Your task to perform on an android device: delete location history Image 0: 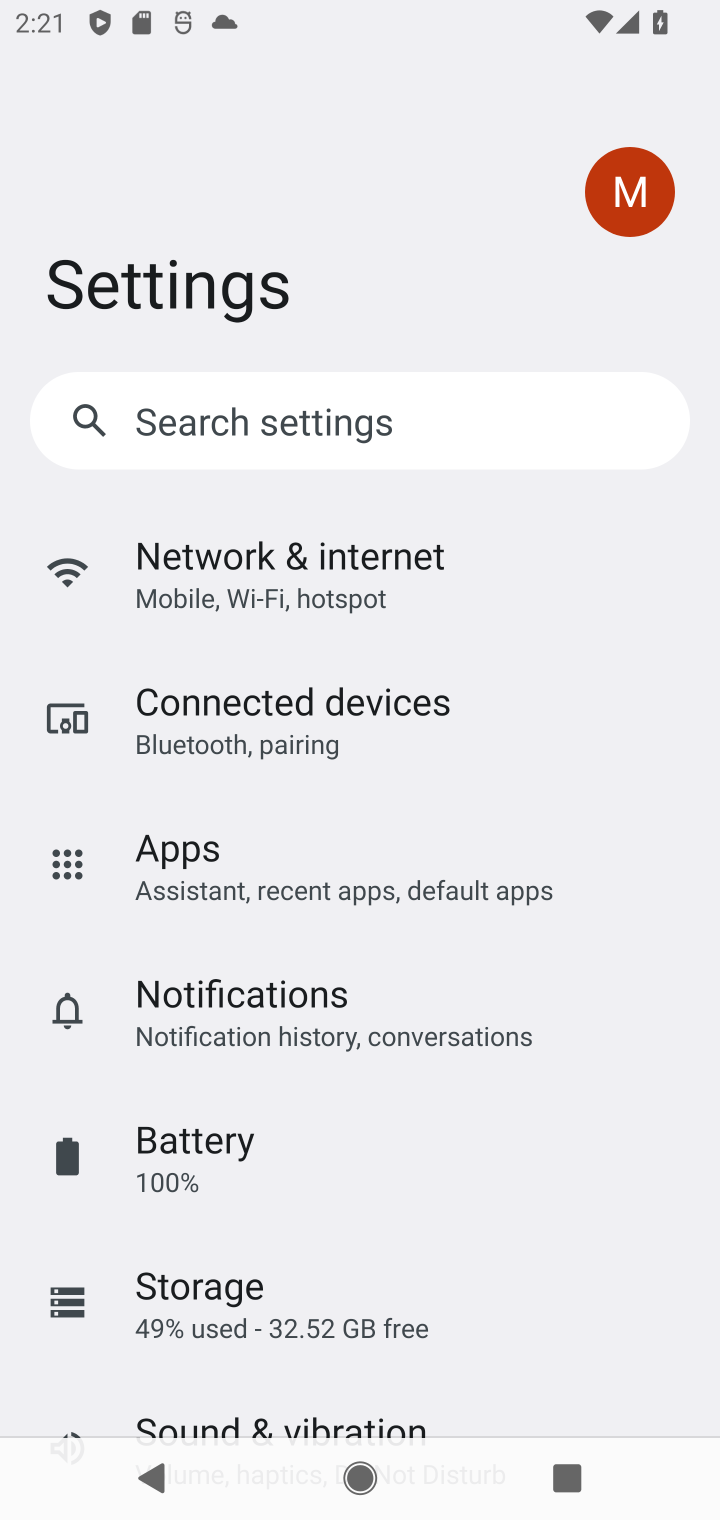
Step 0: press home button
Your task to perform on an android device: delete location history Image 1: 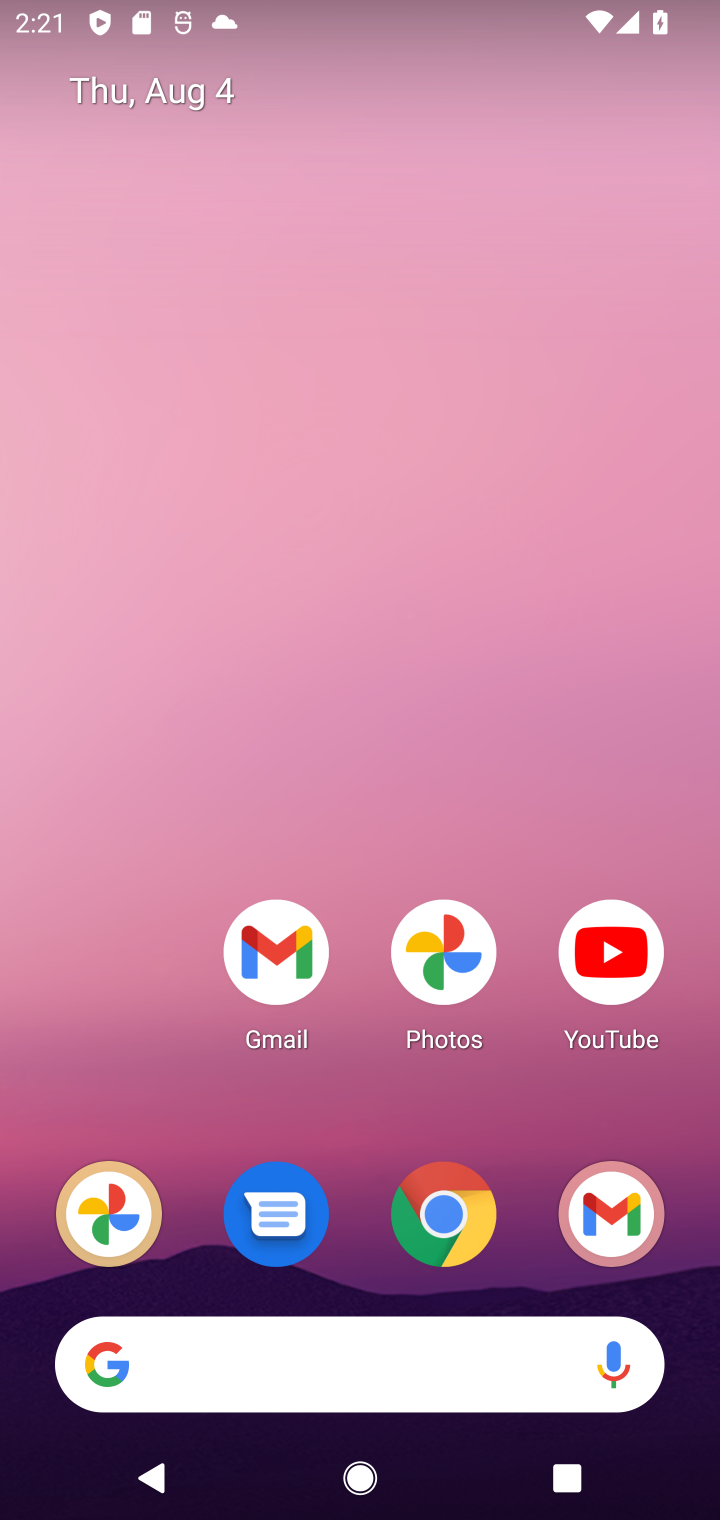
Step 1: drag from (144, 870) to (216, 0)
Your task to perform on an android device: delete location history Image 2: 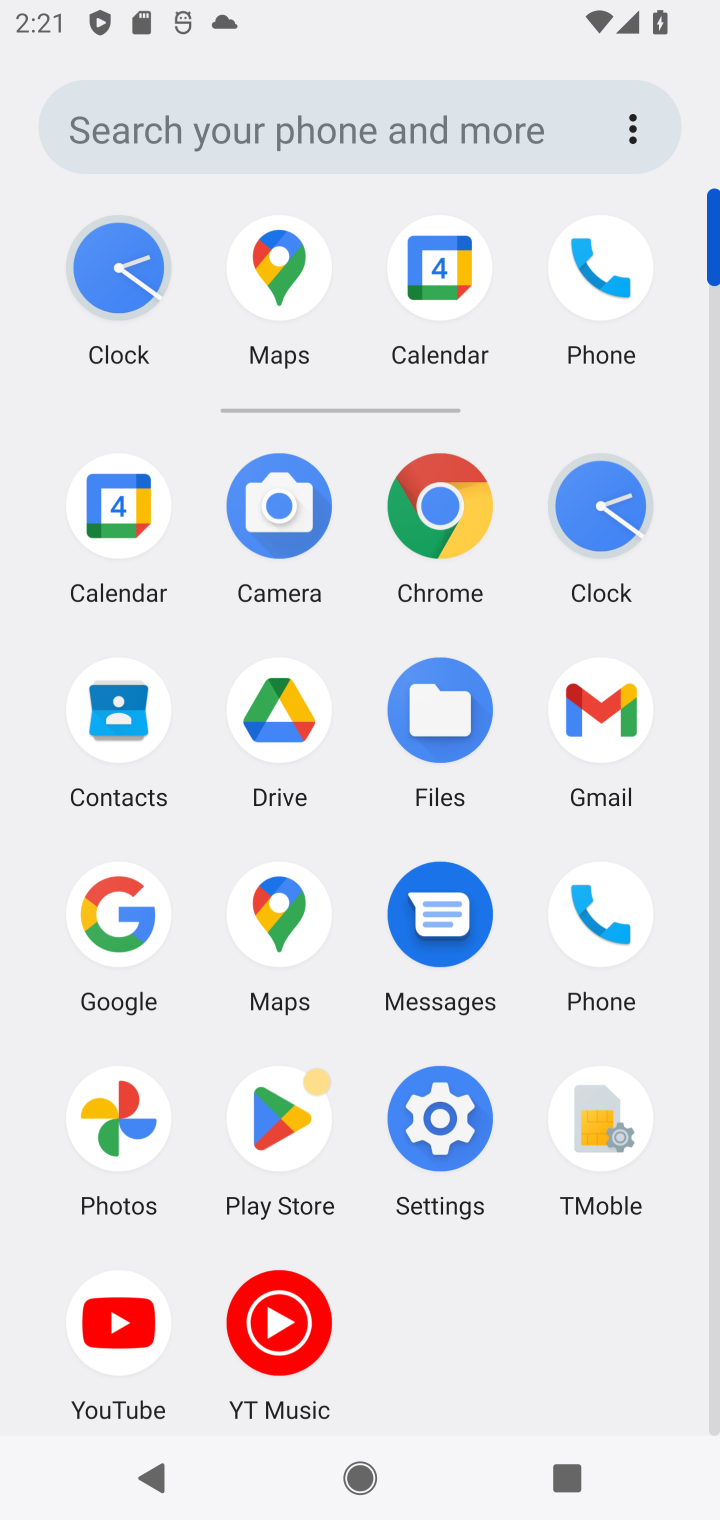
Step 2: click (455, 1149)
Your task to perform on an android device: delete location history Image 3: 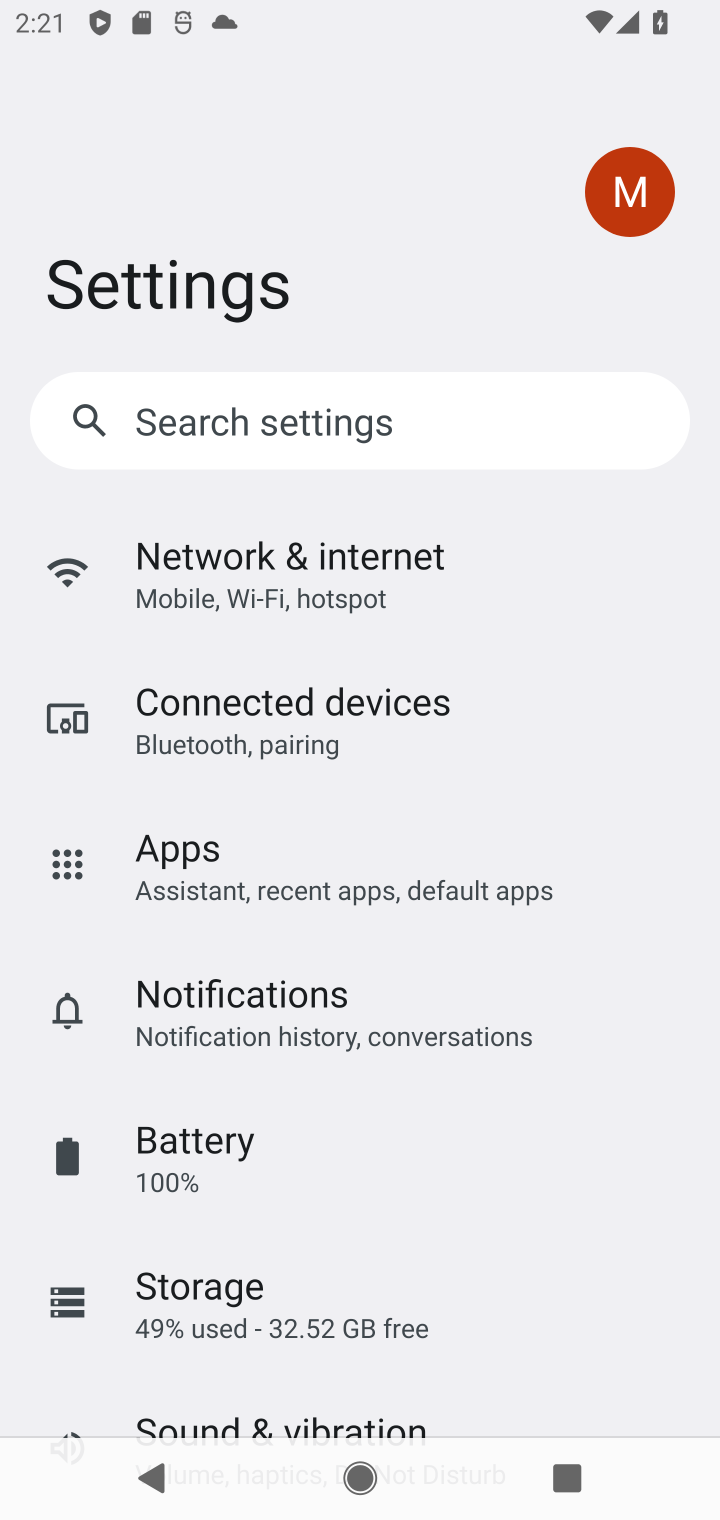
Step 3: drag from (174, 1205) to (239, 198)
Your task to perform on an android device: delete location history Image 4: 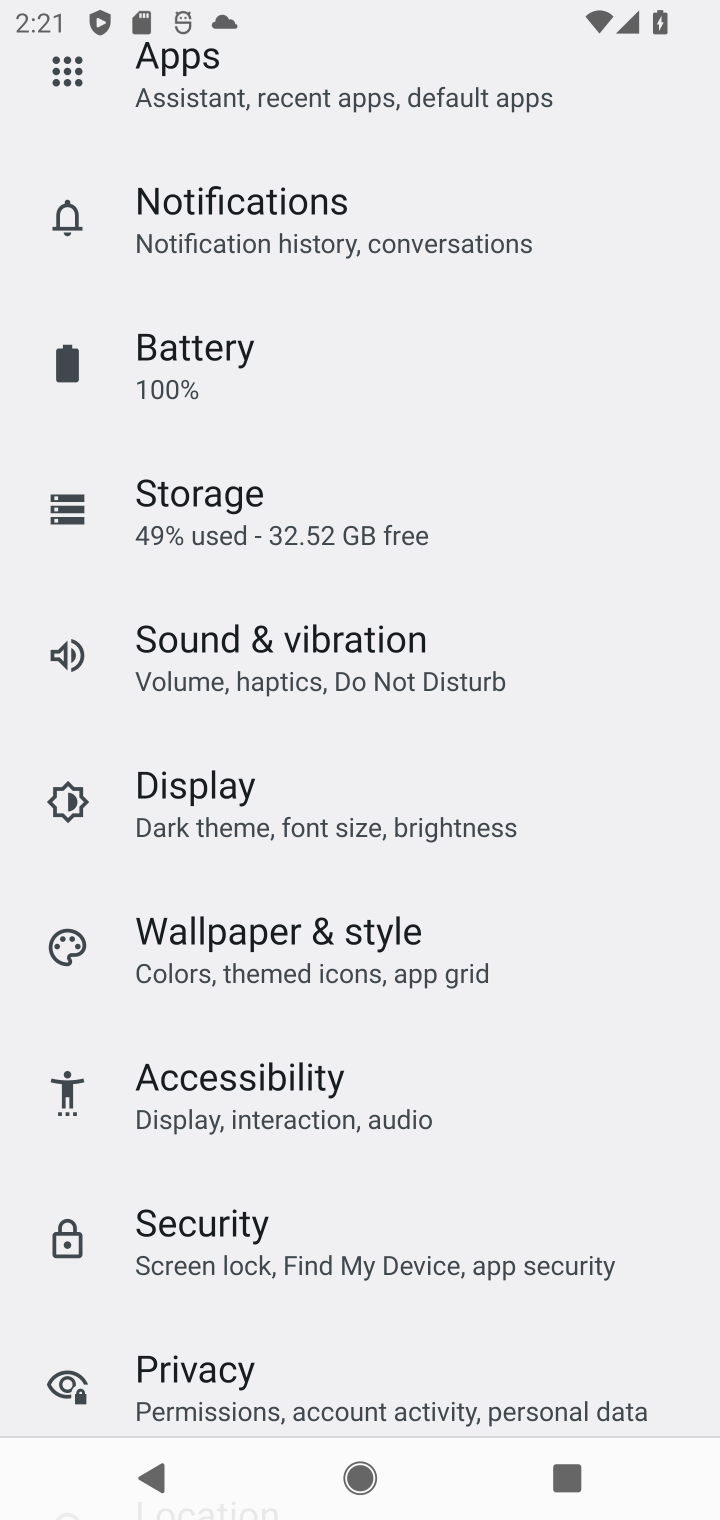
Step 4: drag from (264, 1280) to (140, 203)
Your task to perform on an android device: delete location history Image 5: 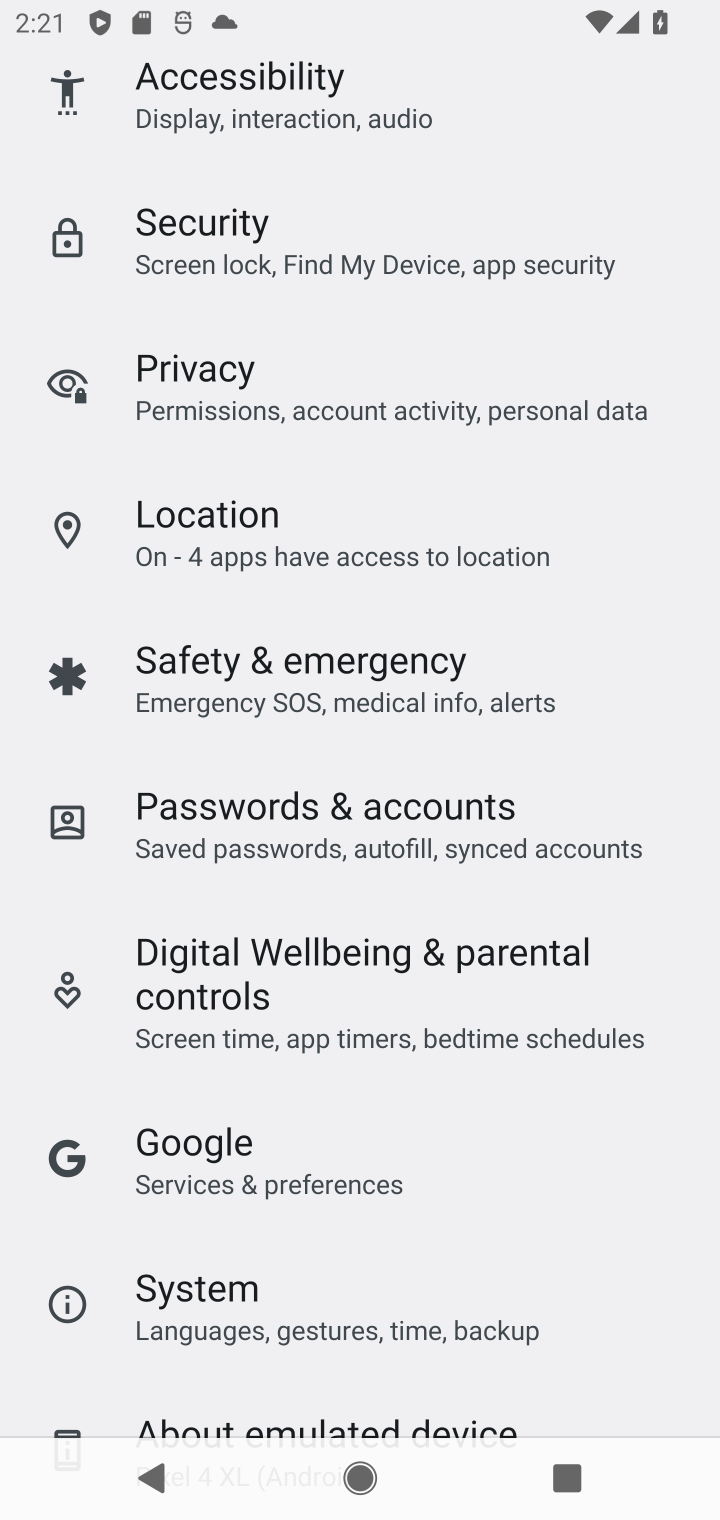
Step 5: drag from (204, 1199) to (248, 193)
Your task to perform on an android device: delete location history Image 6: 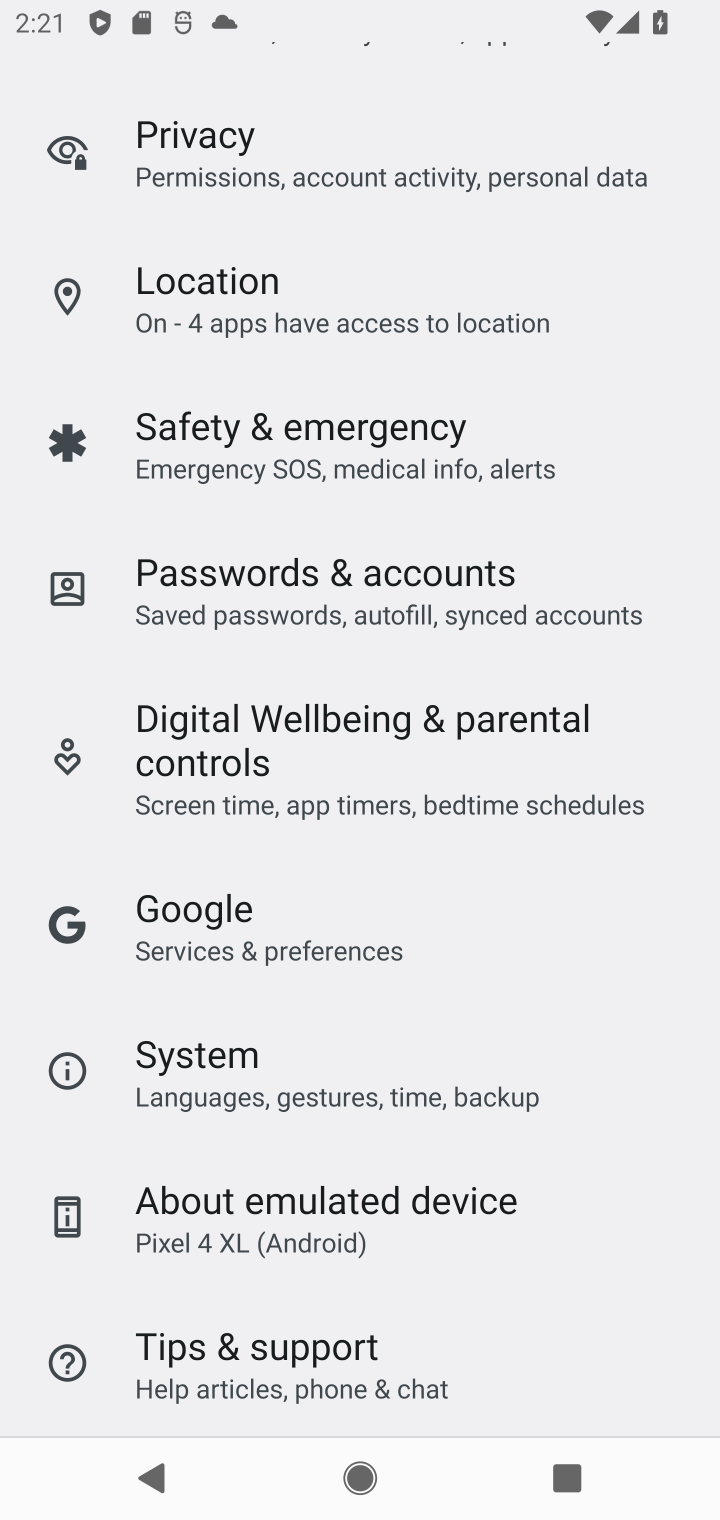
Step 6: drag from (263, 174) to (283, 701)
Your task to perform on an android device: delete location history Image 7: 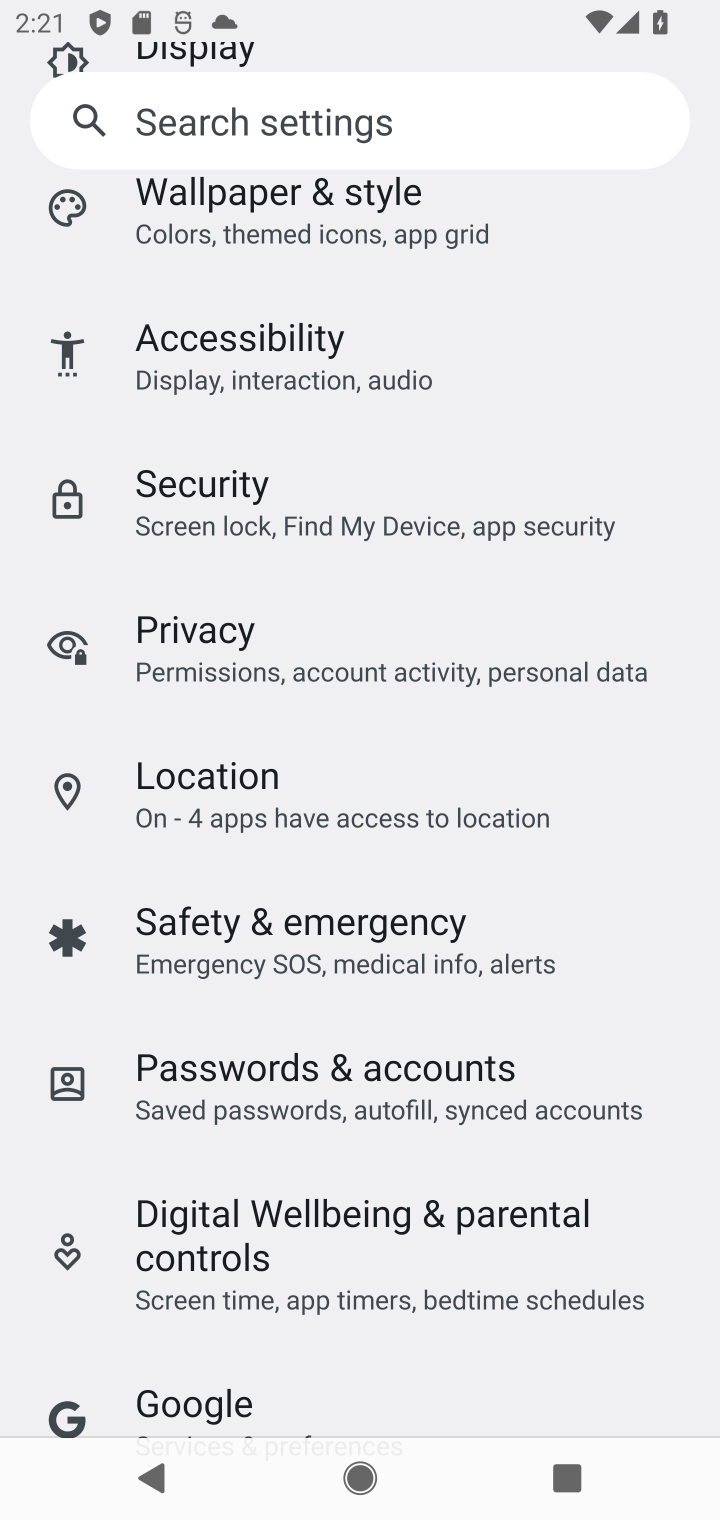
Step 7: click (177, 834)
Your task to perform on an android device: delete location history Image 8: 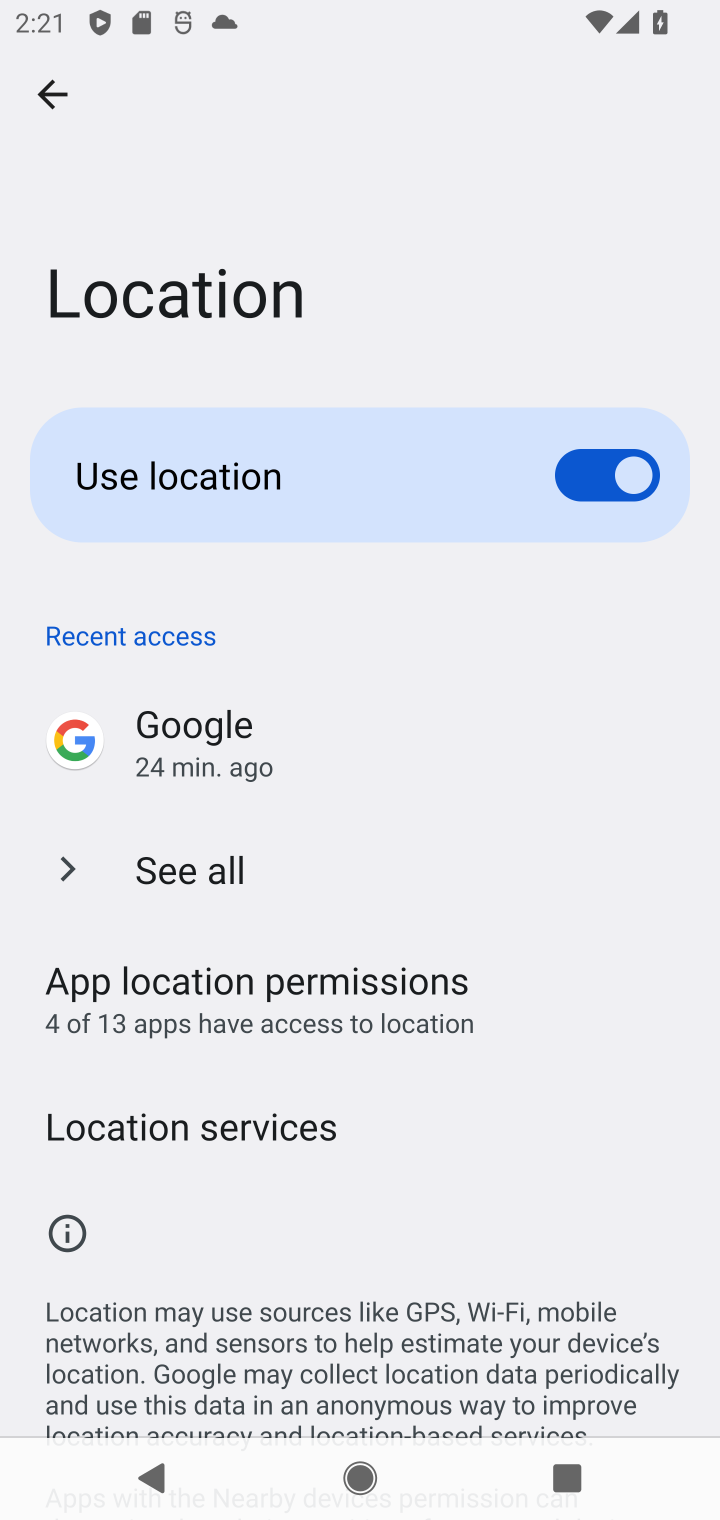
Step 8: click (196, 1158)
Your task to perform on an android device: delete location history Image 9: 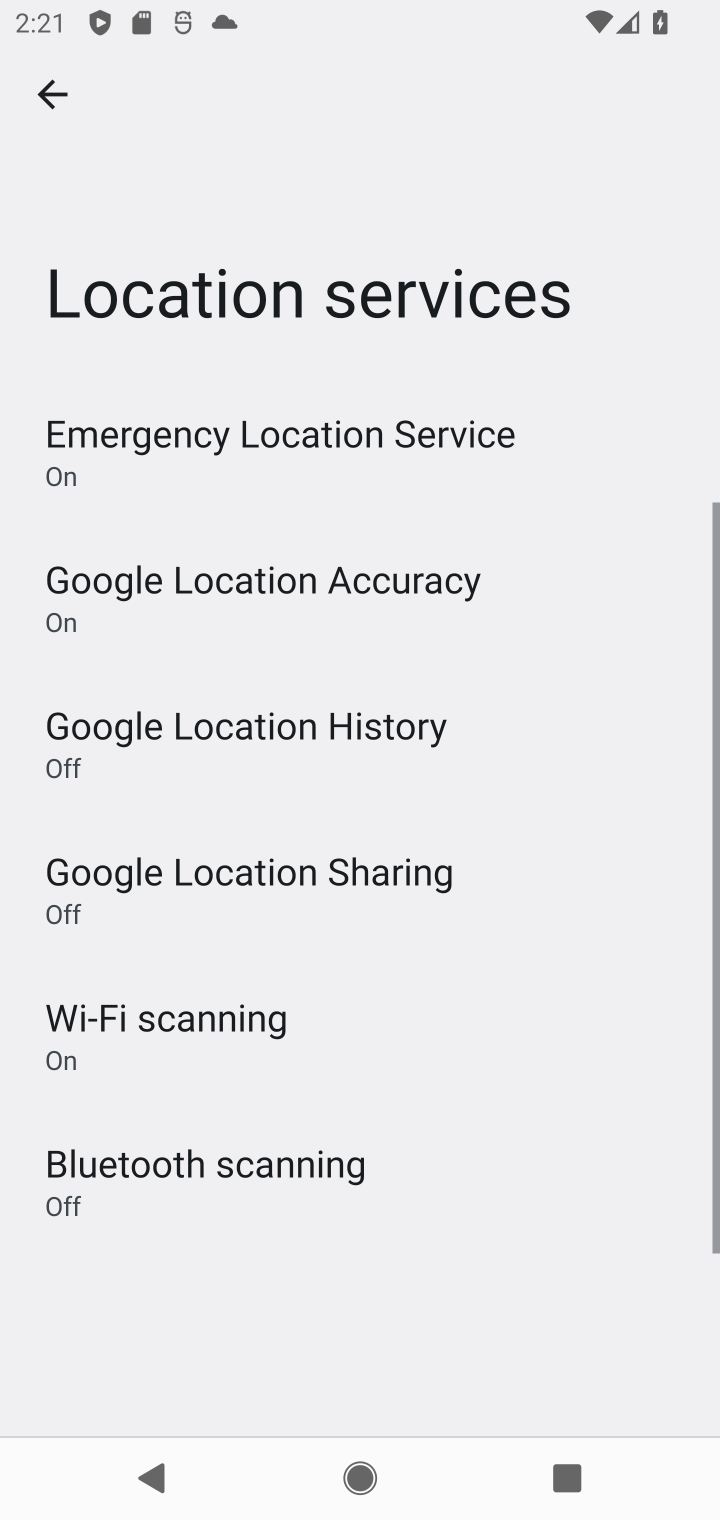
Step 9: click (285, 746)
Your task to perform on an android device: delete location history Image 10: 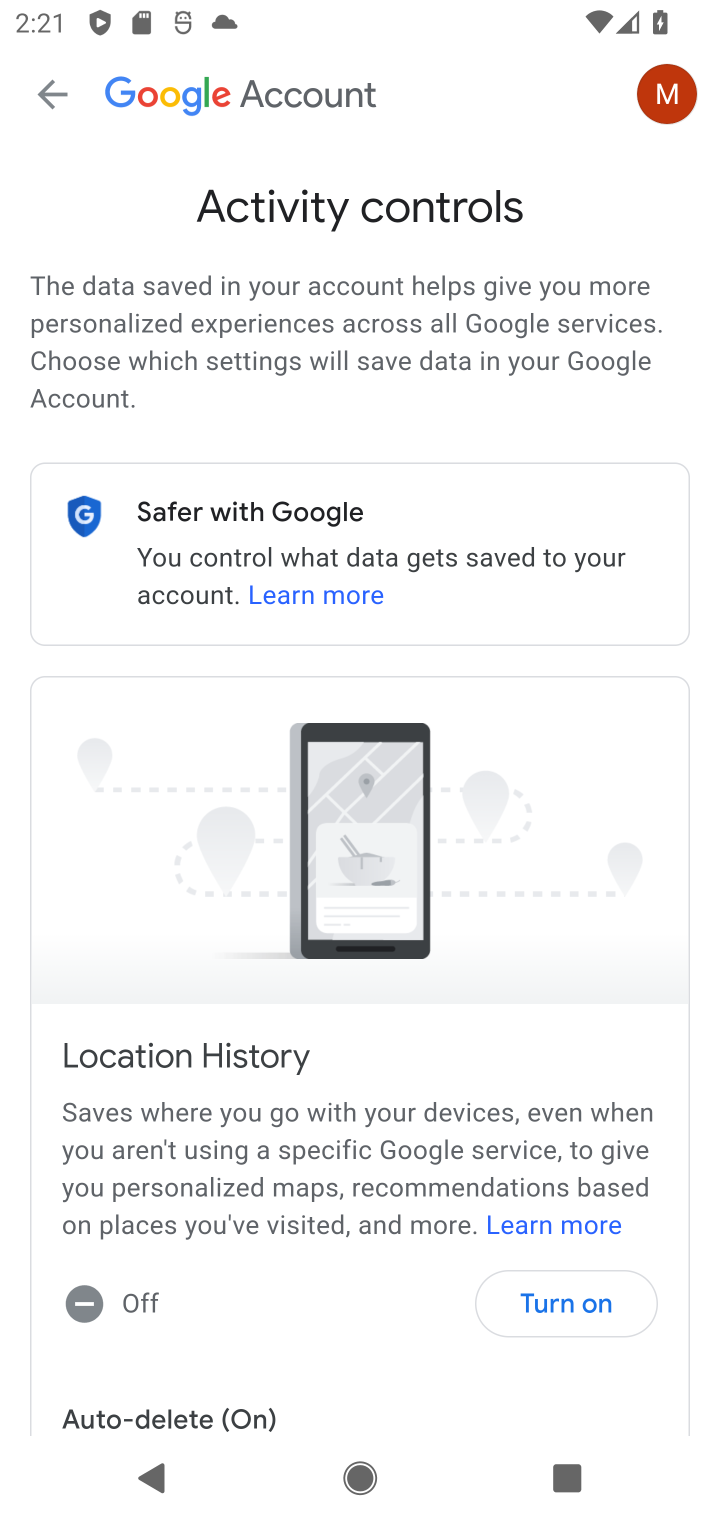
Step 10: drag from (282, 1305) to (299, 448)
Your task to perform on an android device: delete location history Image 11: 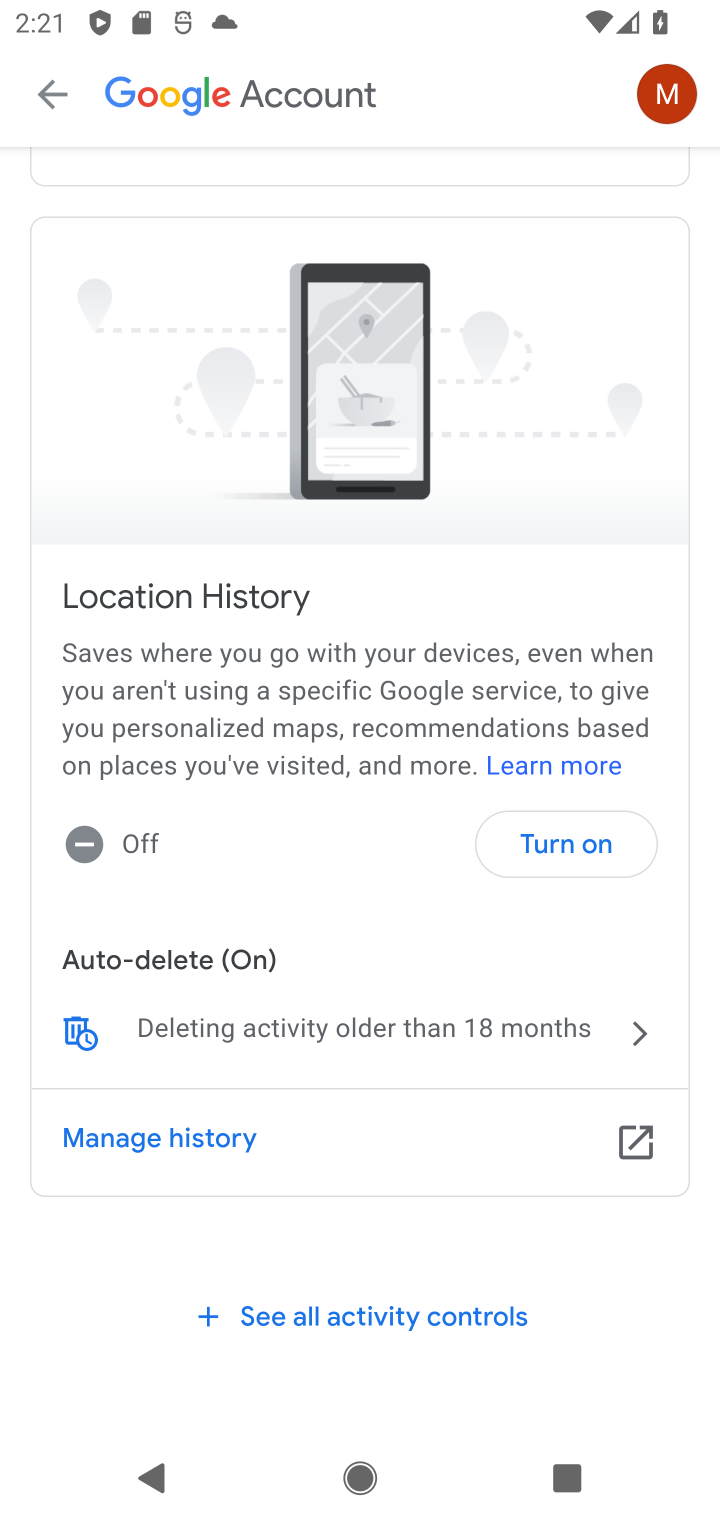
Step 11: click (383, 994)
Your task to perform on an android device: delete location history Image 12: 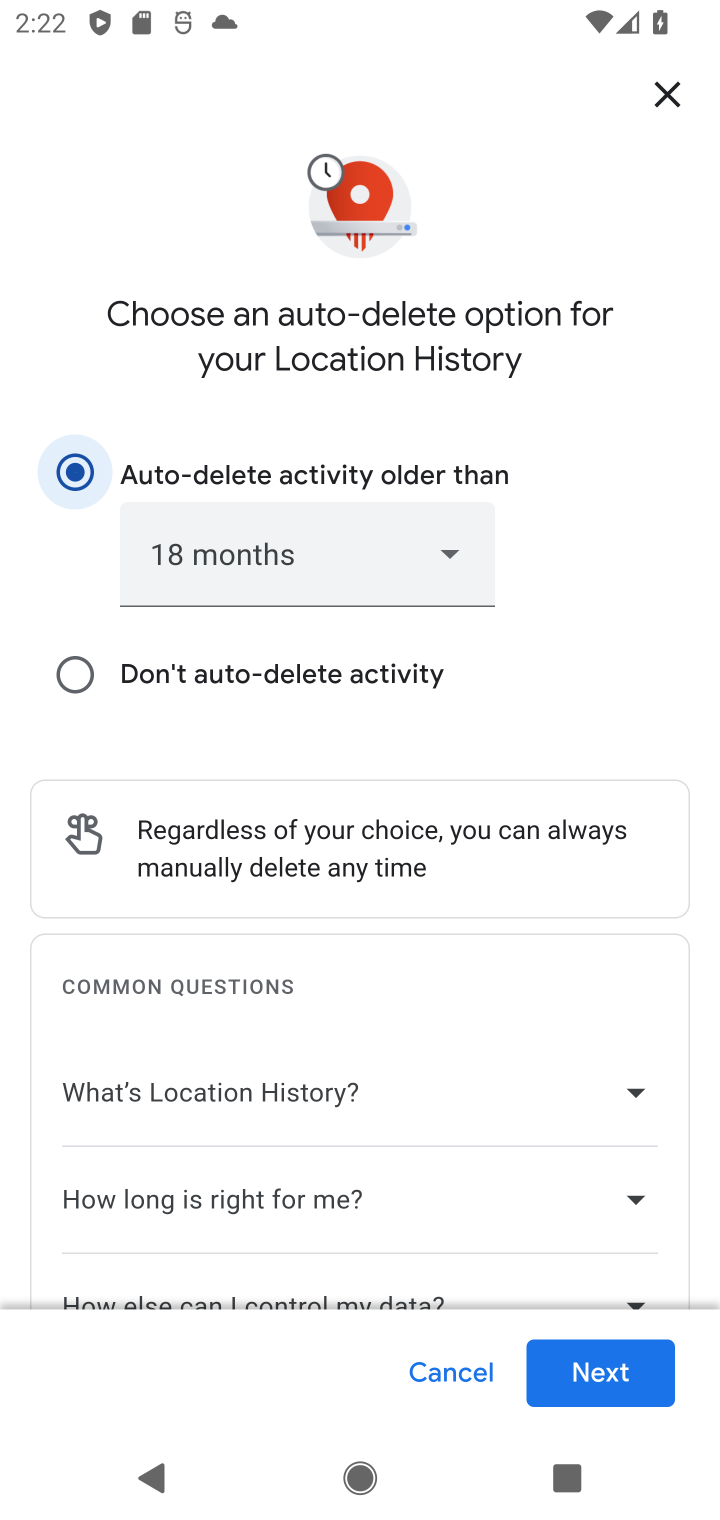
Step 12: click (610, 1384)
Your task to perform on an android device: delete location history Image 13: 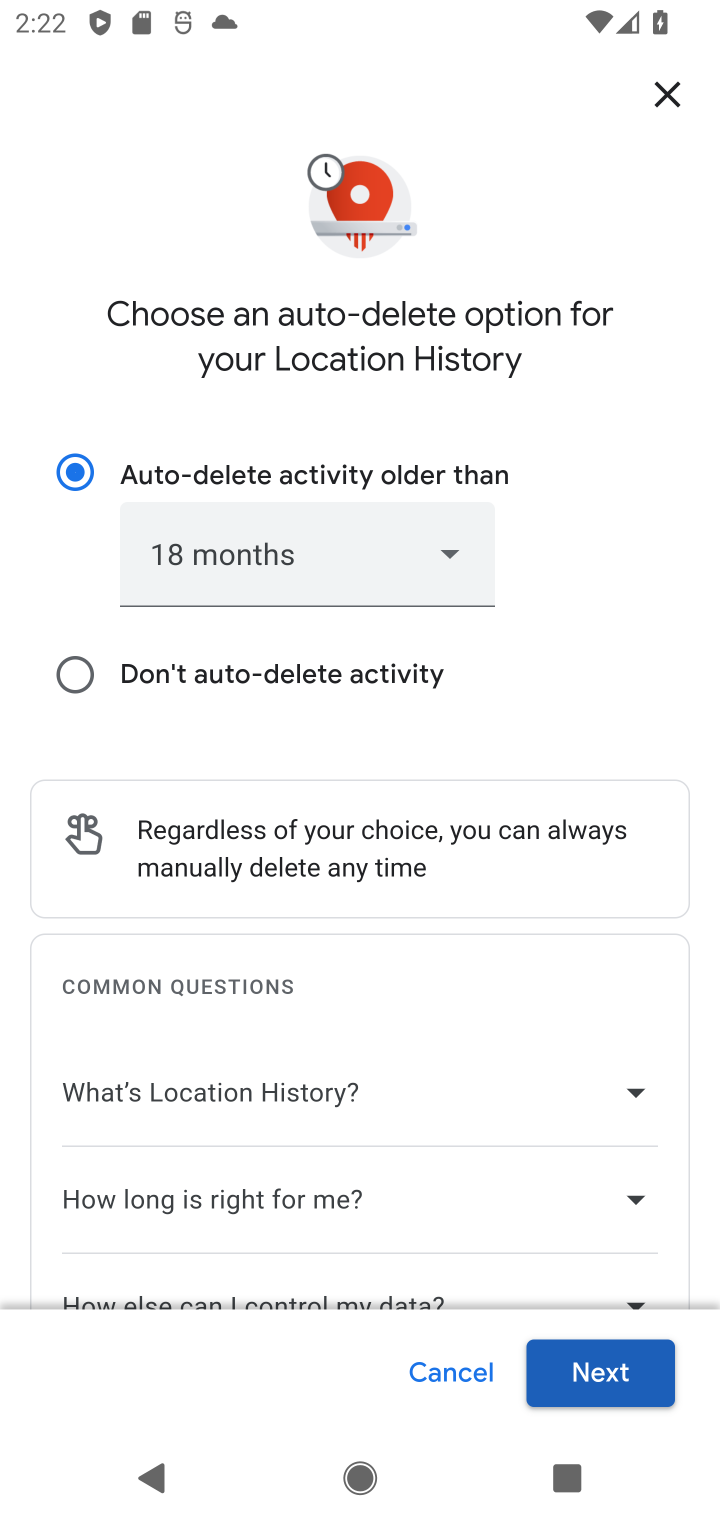
Step 13: click (615, 1403)
Your task to perform on an android device: delete location history Image 14: 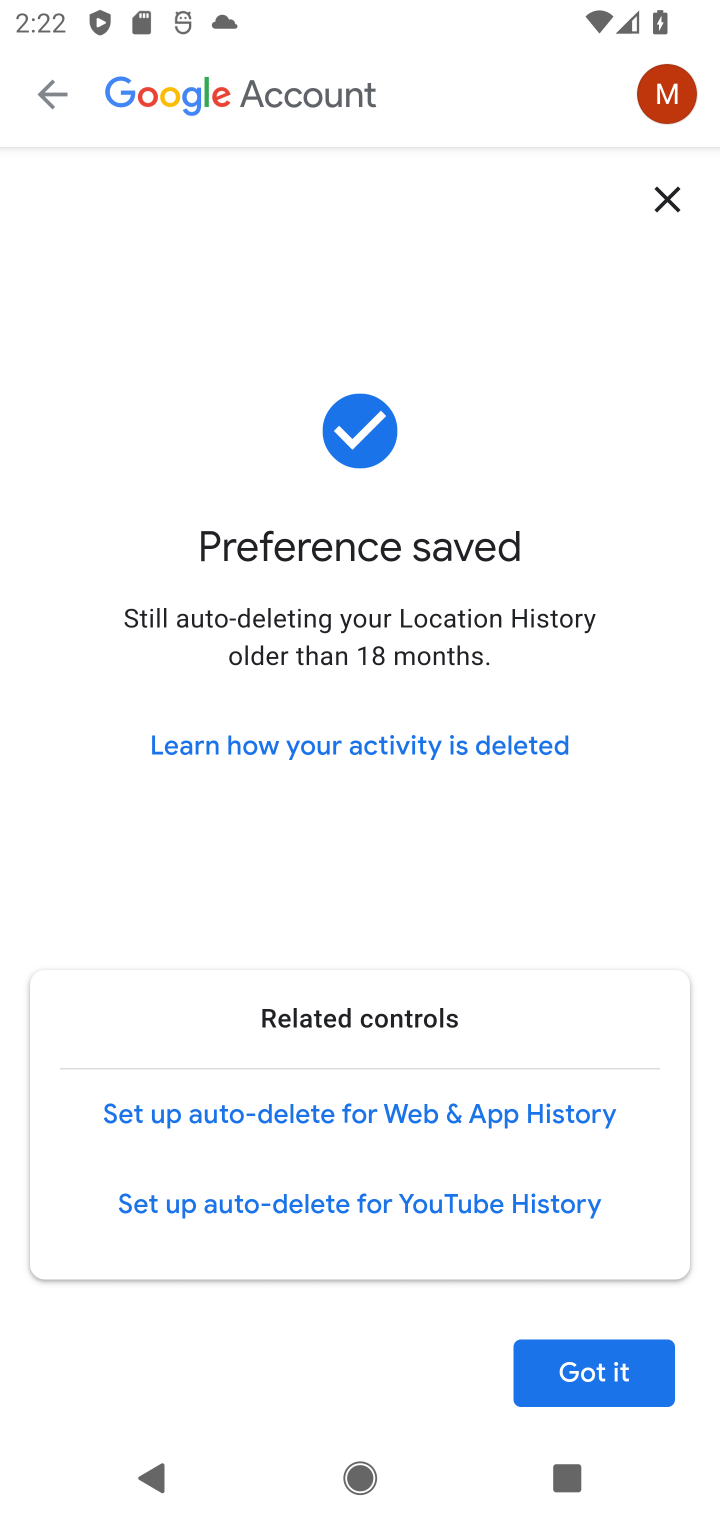
Step 14: task complete